Your task to perform on an android device: open app "Upside-Cash back on gas & food" (install if not already installed), go to login, and select forgot password Image 0: 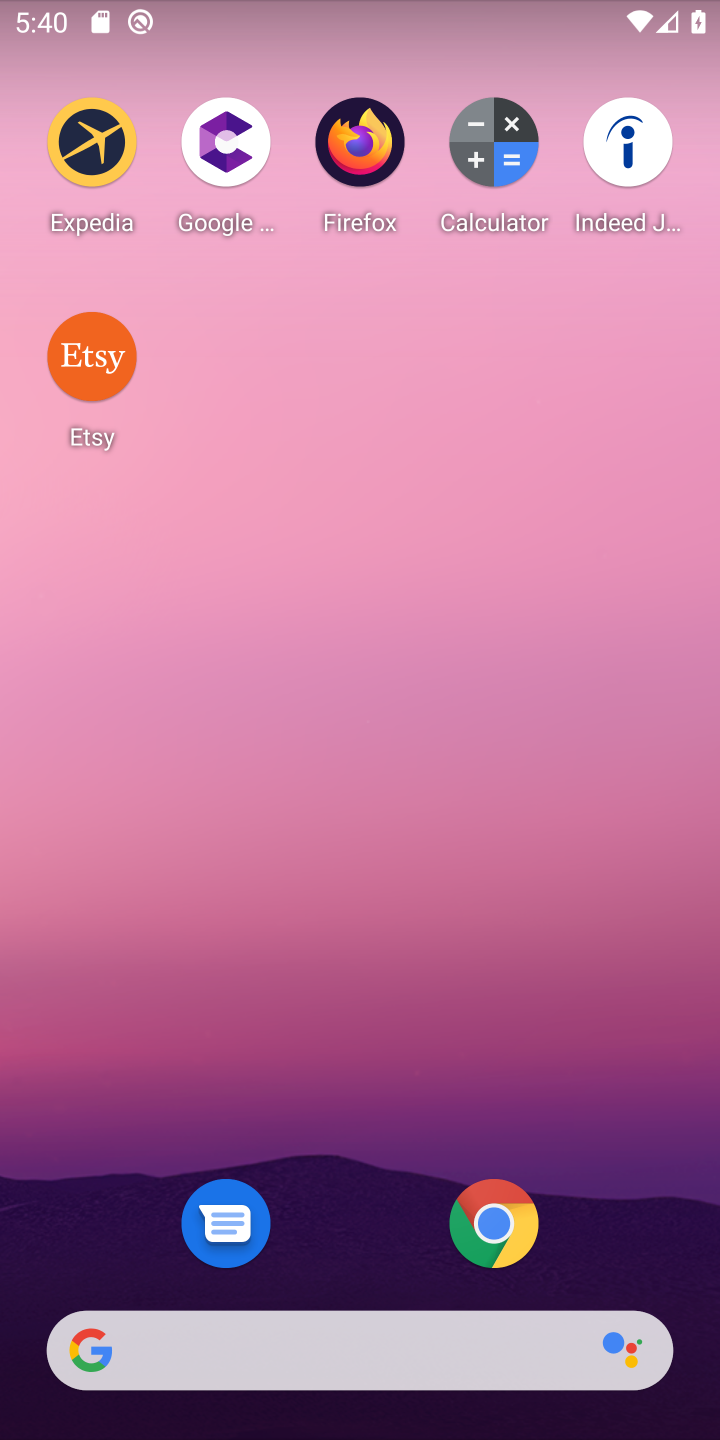
Step 0: drag from (320, 1329) to (60, 552)
Your task to perform on an android device: open app "Upside-Cash back on gas & food" (install if not already installed), go to login, and select forgot password Image 1: 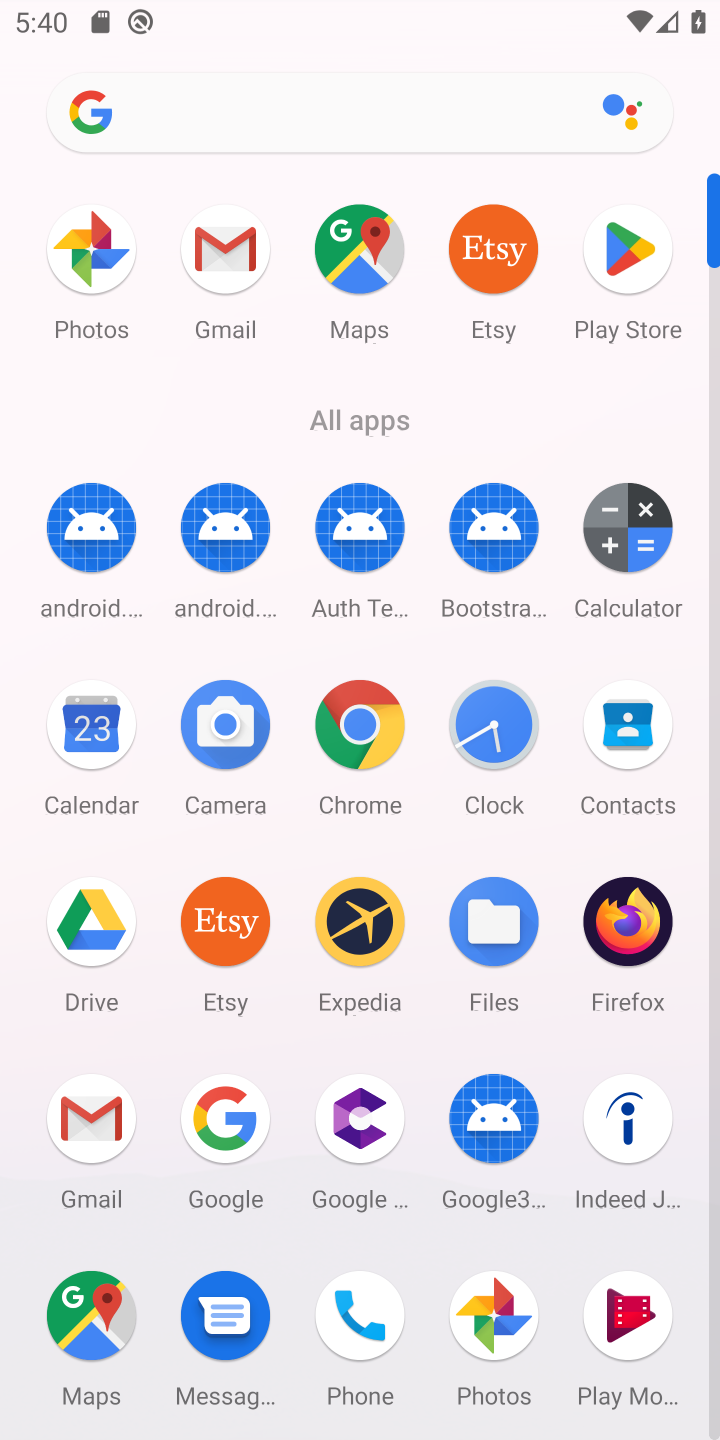
Step 1: click (636, 274)
Your task to perform on an android device: open app "Upside-Cash back on gas & food" (install if not already installed), go to login, and select forgot password Image 2: 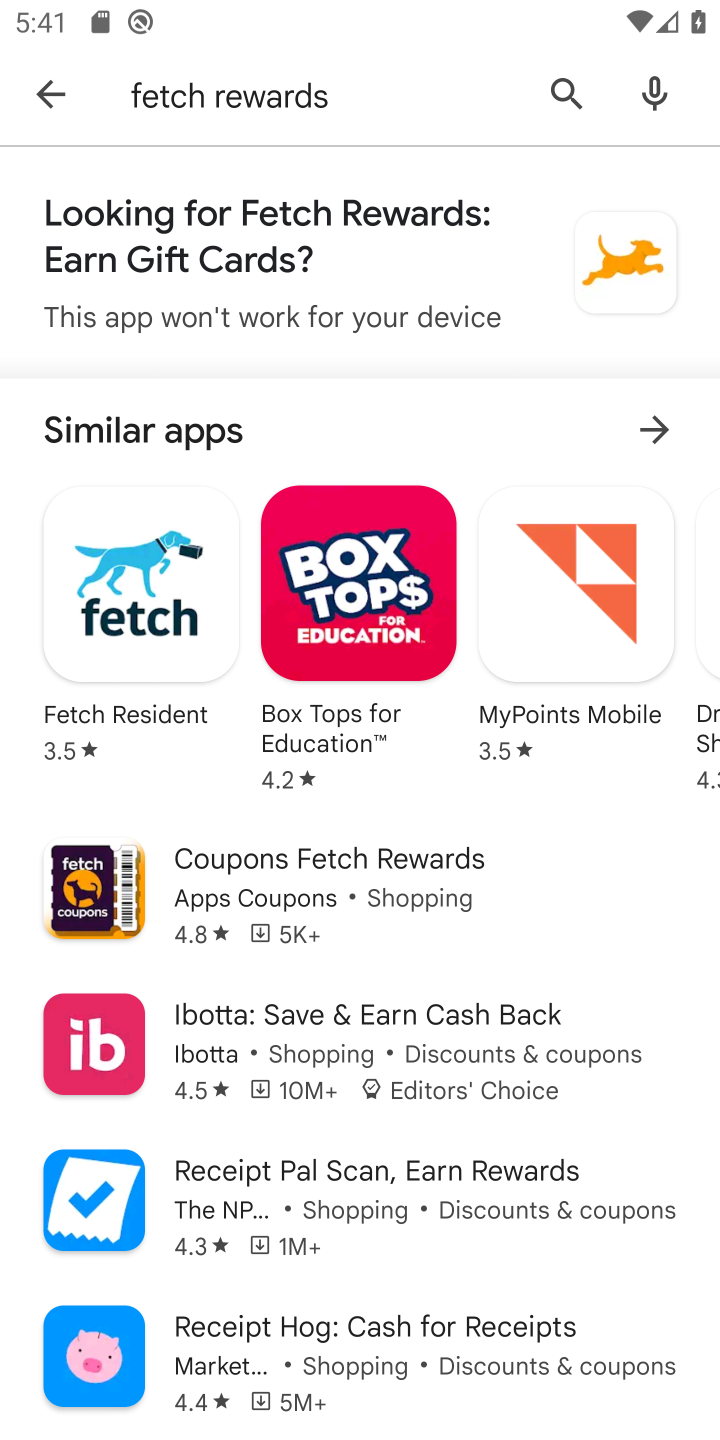
Step 2: click (563, 89)
Your task to perform on an android device: open app "Upside-Cash back on gas & food" (install if not already installed), go to login, and select forgot password Image 3: 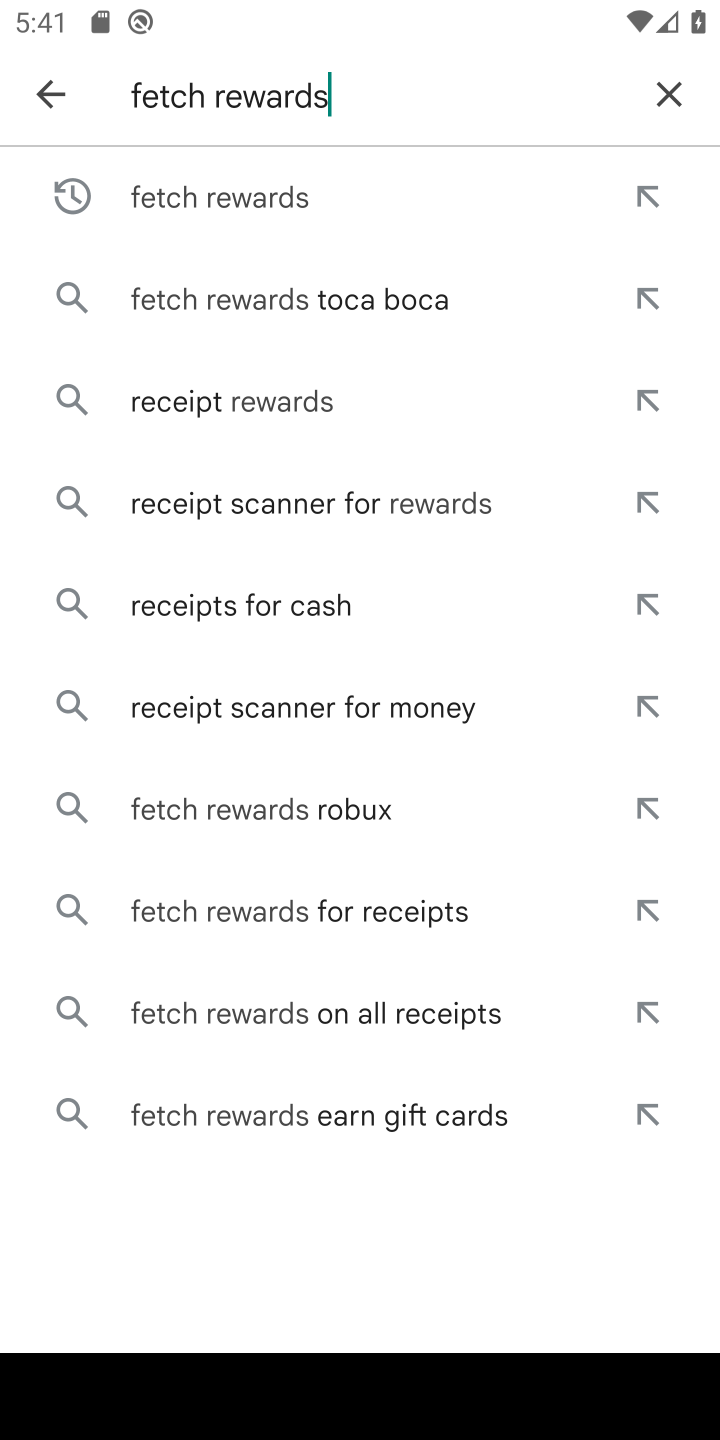
Step 3: click (684, 102)
Your task to perform on an android device: open app "Upside-Cash back on gas & food" (install if not already installed), go to login, and select forgot password Image 4: 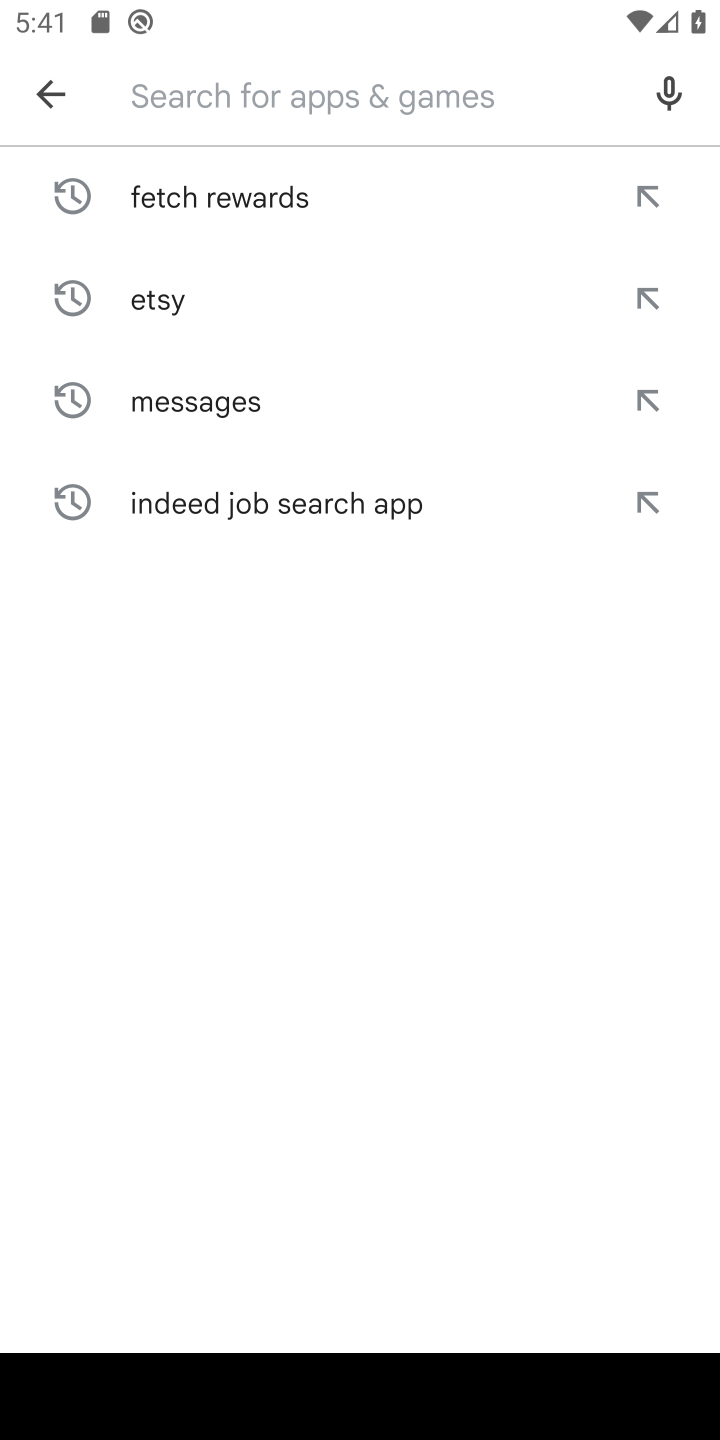
Step 4: type "Upside-Cash back on gas & food"
Your task to perform on an android device: open app "Upside-Cash back on gas & food" (install if not already installed), go to login, and select forgot password Image 5: 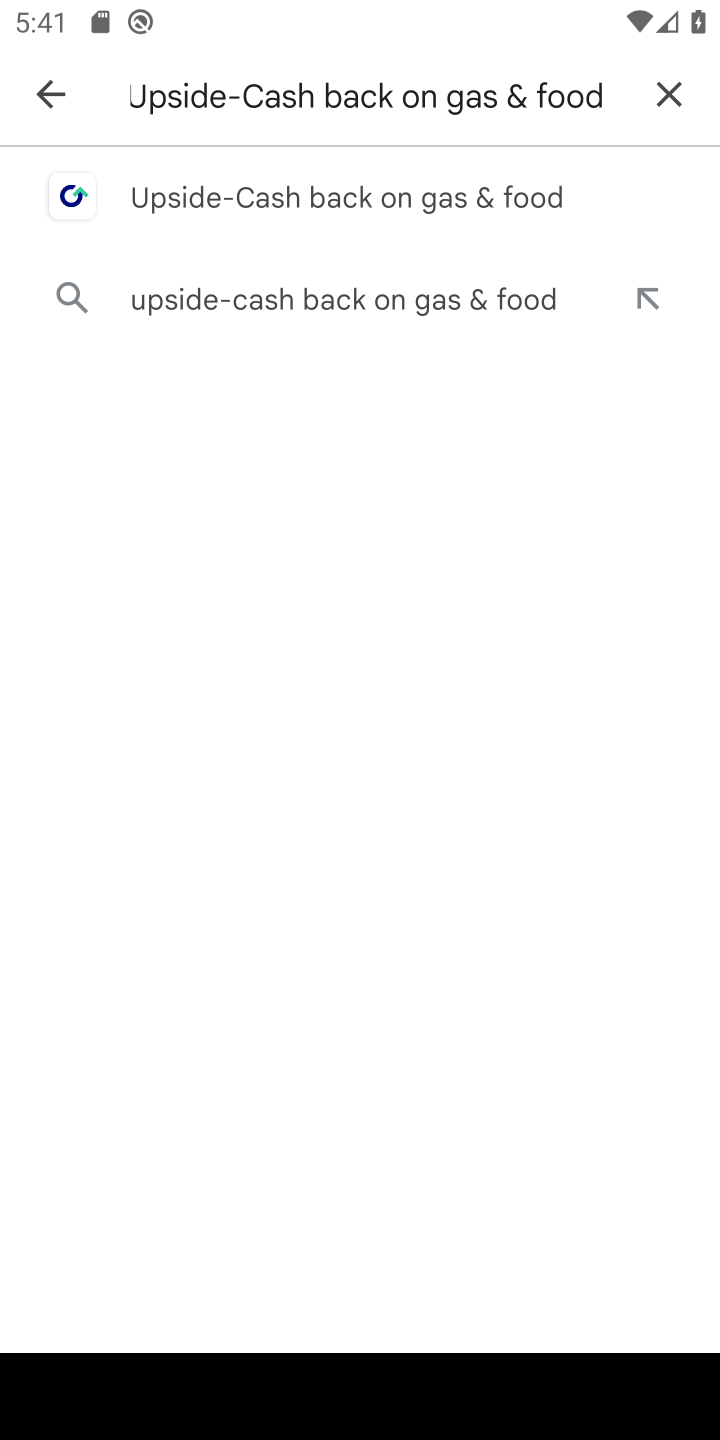
Step 5: click (403, 188)
Your task to perform on an android device: open app "Upside-Cash back on gas & food" (install if not already installed), go to login, and select forgot password Image 6: 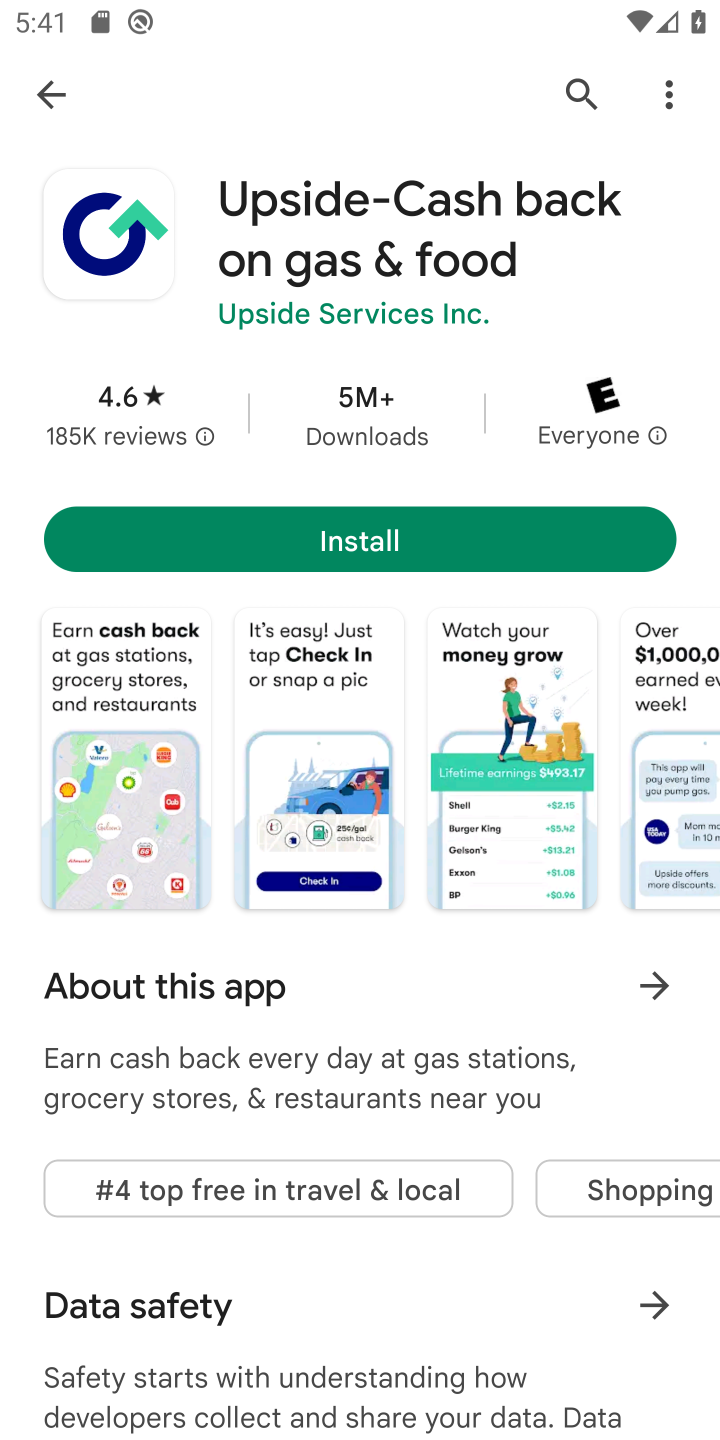
Step 6: click (401, 532)
Your task to perform on an android device: open app "Upside-Cash back on gas & food" (install if not already installed), go to login, and select forgot password Image 7: 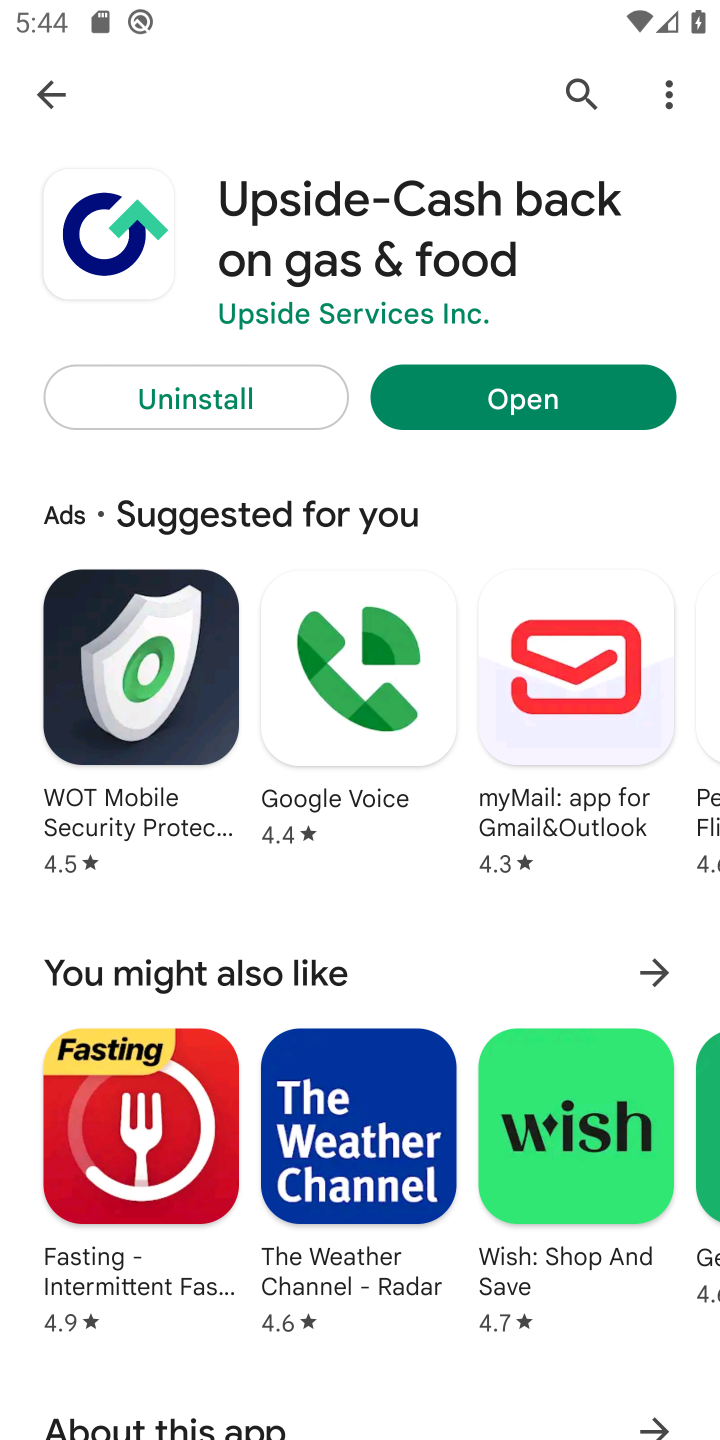
Step 7: click (540, 405)
Your task to perform on an android device: open app "Upside-Cash back on gas & food" (install if not already installed), go to login, and select forgot password Image 8: 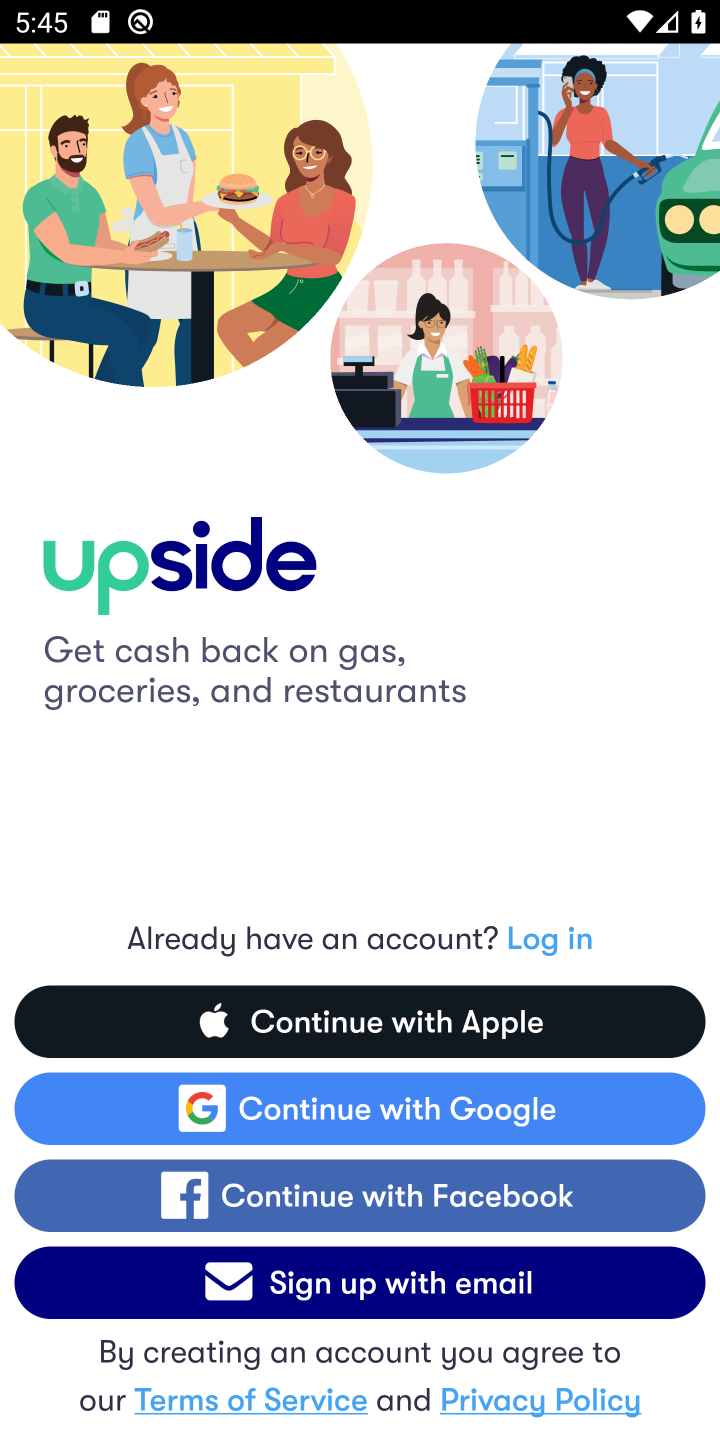
Step 8: click (555, 930)
Your task to perform on an android device: open app "Upside-Cash back on gas & food" (install if not already installed), go to login, and select forgot password Image 9: 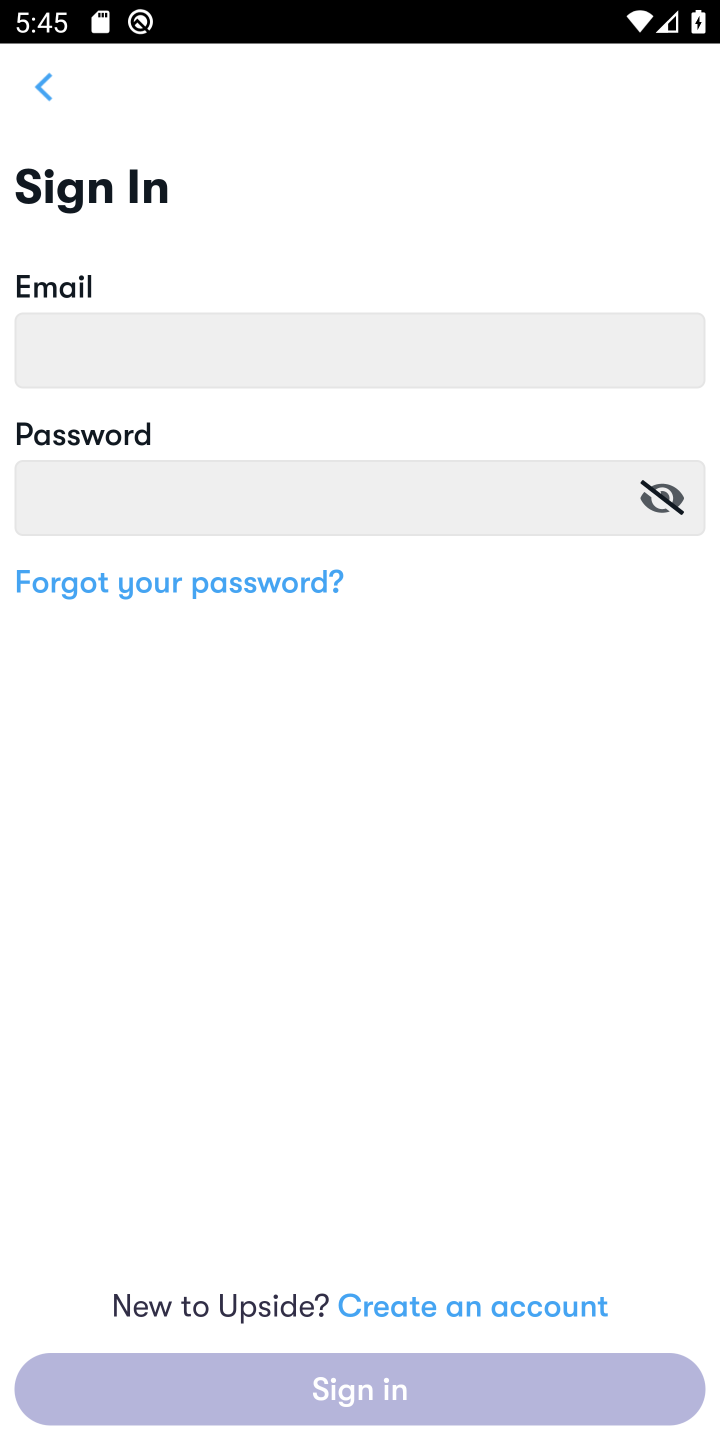
Step 9: click (203, 584)
Your task to perform on an android device: open app "Upside-Cash back on gas & food" (install if not already installed), go to login, and select forgot password Image 10: 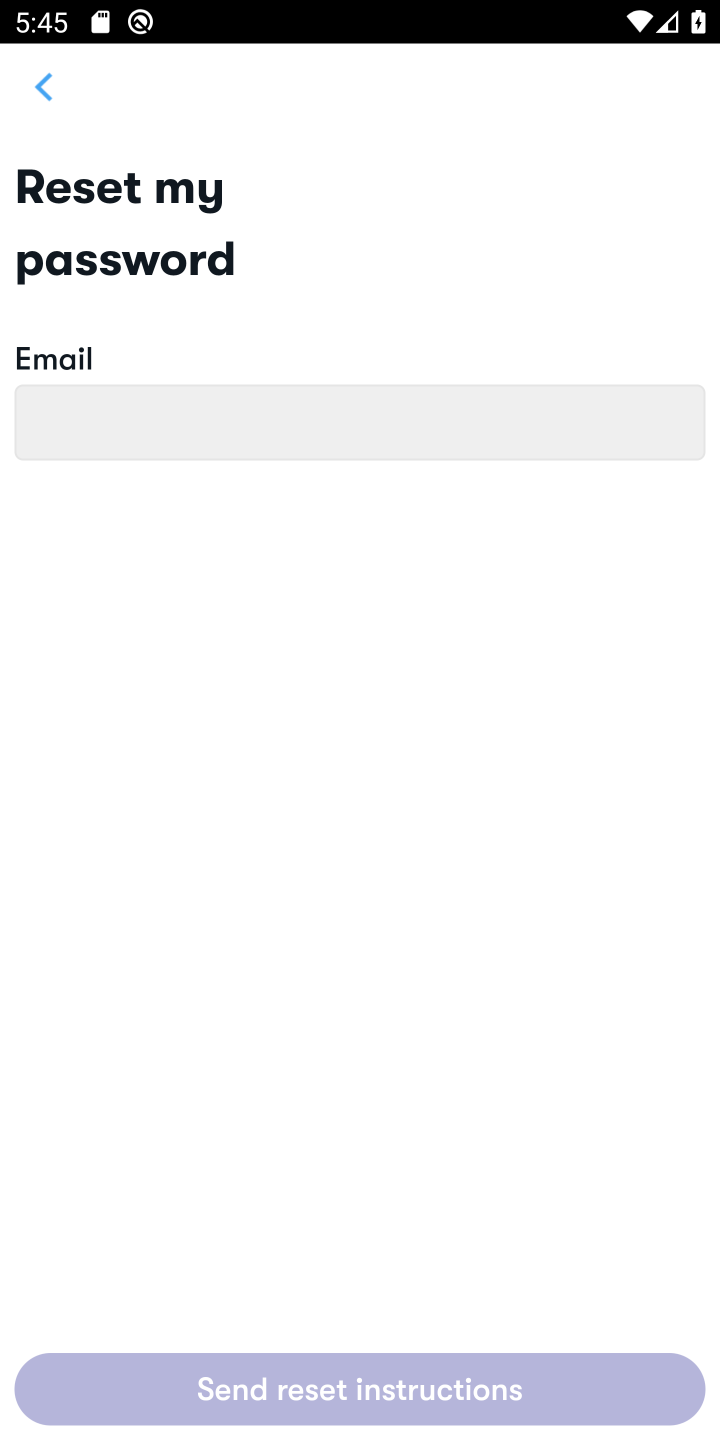
Step 10: task complete